Your task to perform on an android device: Open Yahoo.com Image 0: 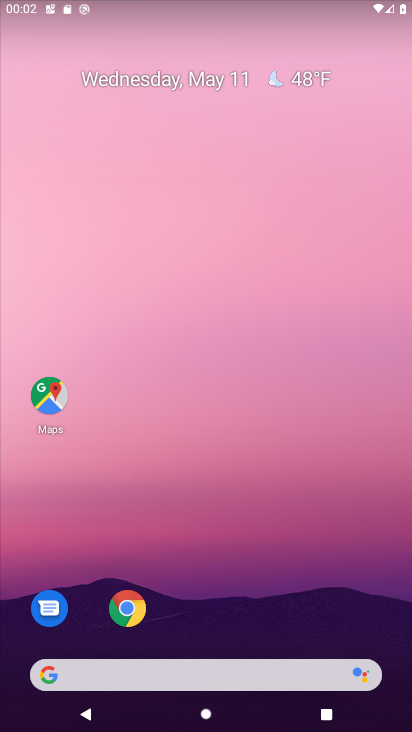
Step 0: click (123, 619)
Your task to perform on an android device: Open Yahoo.com Image 1: 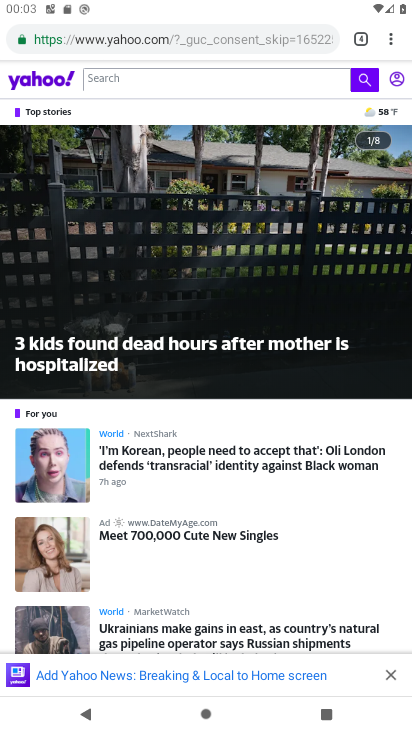
Step 1: task complete